Your task to perform on an android device: change the clock display to analog Image 0: 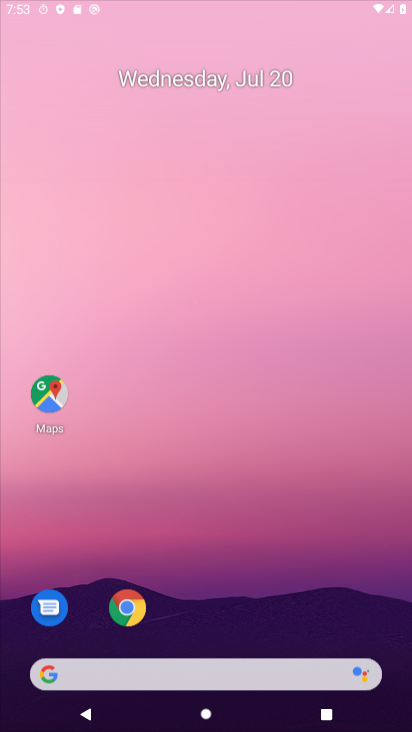
Step 0: click (70, 678)
Your task to perform on an android device: change the clock display to analog Image 1: 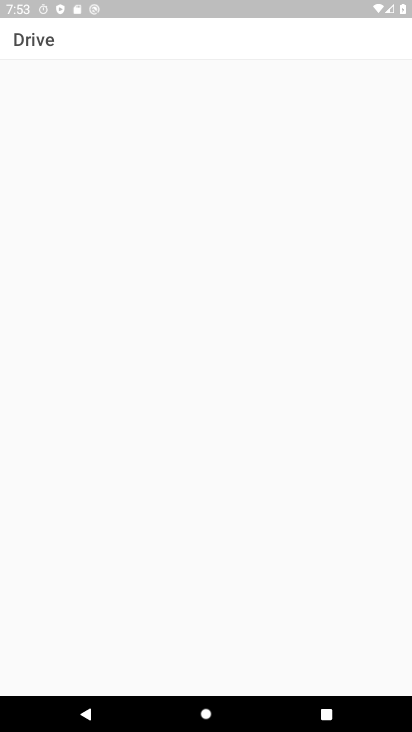
Step 1: click (160, 675)
Your task to perform on an android device: change the clock display to analog Image 2: 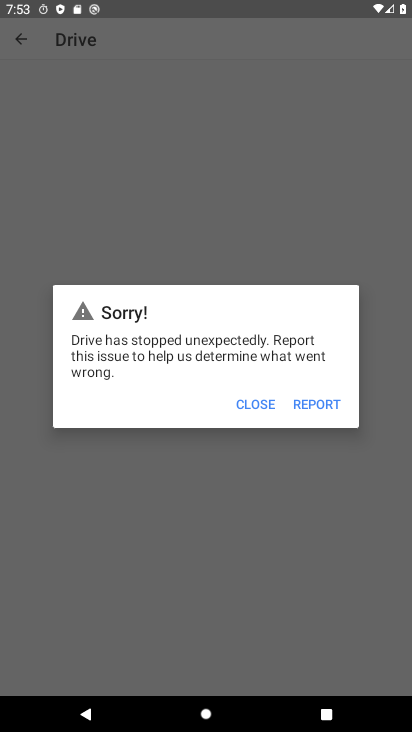
Step 2: click (265, 406)
Your task to perform on an android device: change the clock display to analog Image 3: 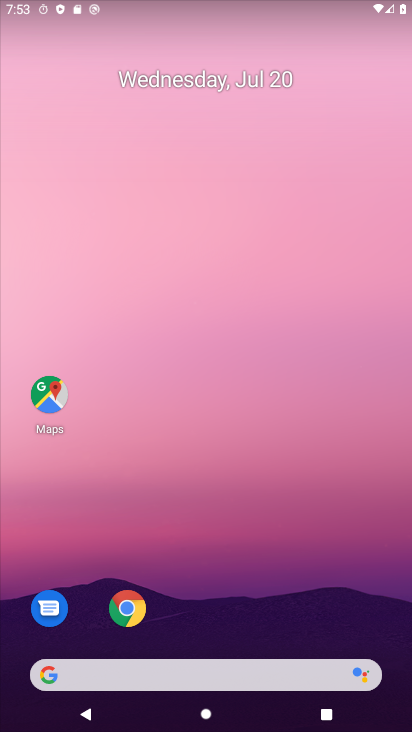
Step 3: drag from (233, 618) to (209, 30)
Your task to perform on an android device: change the clock display to analog Image 4: 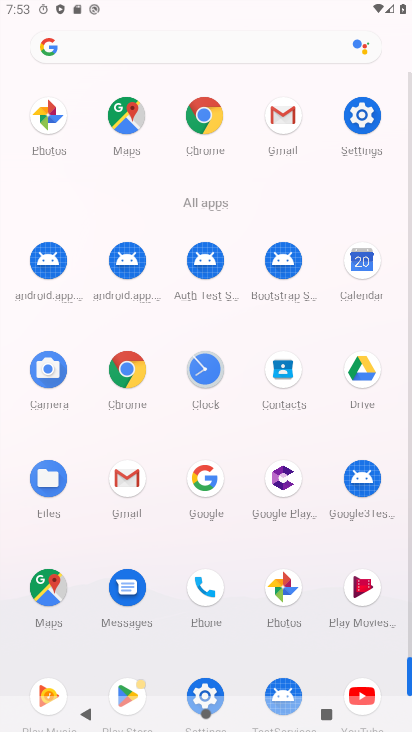
Step 4: click (206, 372)
Your task to perform on an android device: change the clock display to analog Image 5: 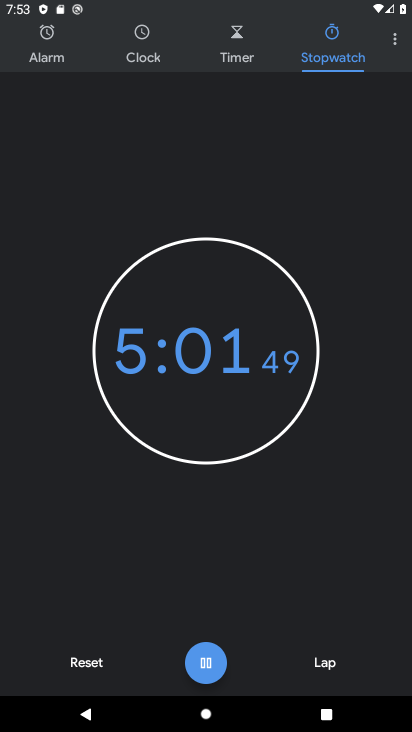
Step 5: click (73, 659)
Your task to perform on an android device: change the clock display to analog Image 6: 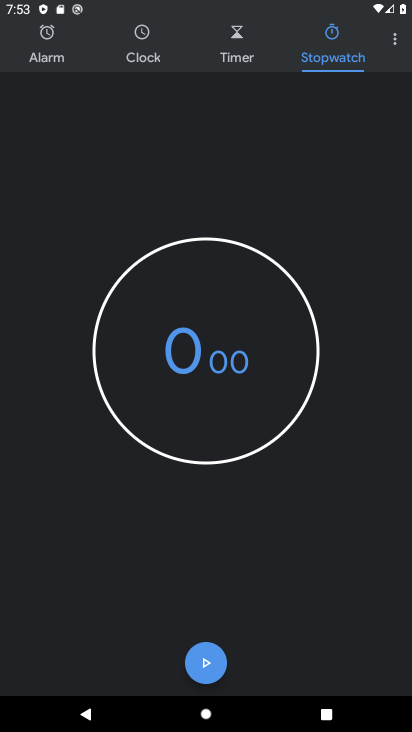
Step 6: click (396, 44)
Your task to perform on an android device: change the clock display to analog Image 7: 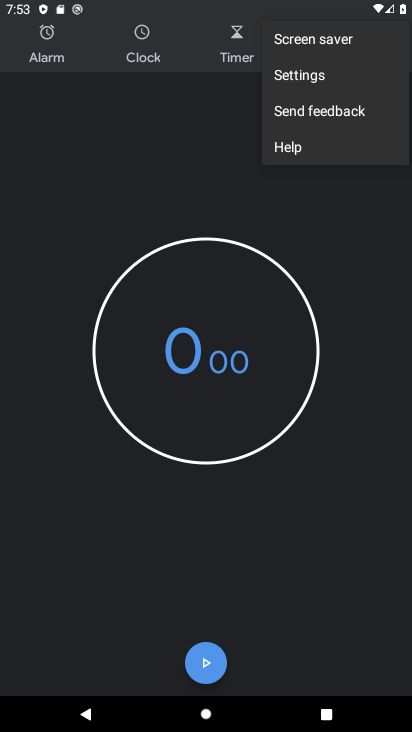
Step 7: click (297, 83)
Your task to perform on an android device: change the clock display to analog Image 8: 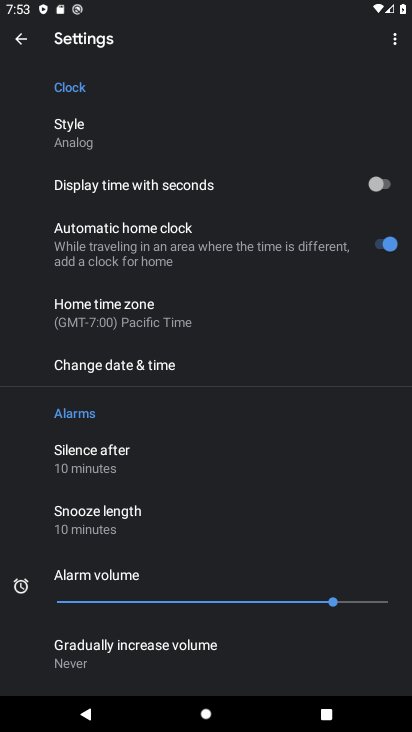
Step 8: click (74, 137)
Your task to perform on an android device: change the clock display to analog Image 9: 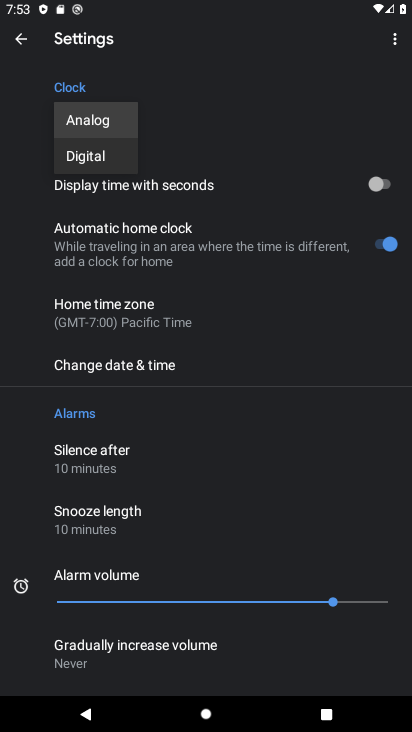
Step 9: task complete